Your task to perform on an android device: Open battery settings Image 0: 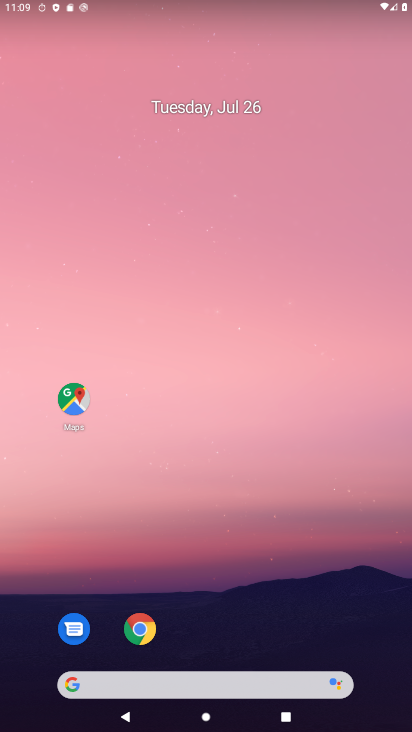
Step 0: drag from (379, 638) to (179, 4)
Your task to perform on an android device: Open battery settings Image 1: 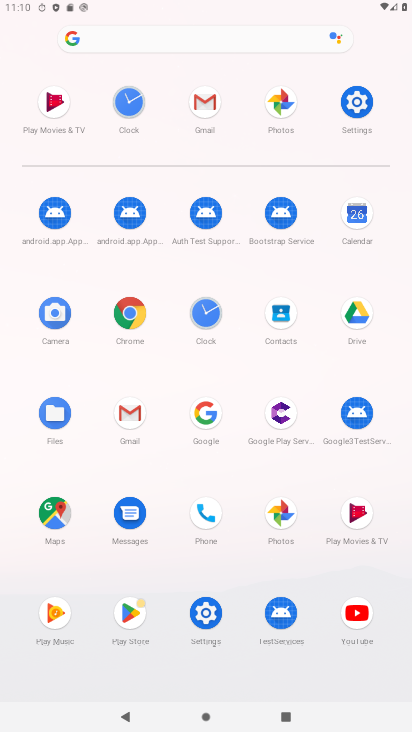
Step 1: click (196, 617)
Your task to perform on an android device: Open battery settings Image 2: 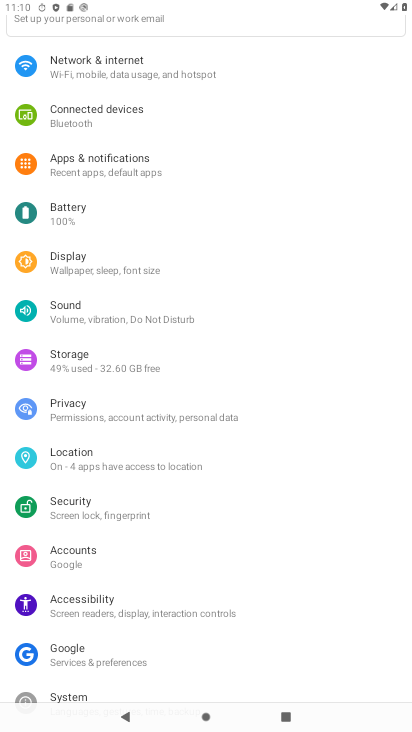
Step 2: click (101, 227)
Your task to perform on an android device: Open battery settings Image 3: 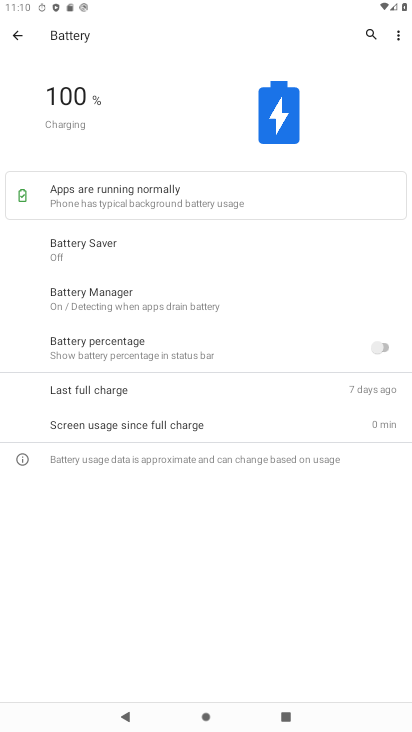
Step 3: task complete